Your task to perform on an android device: set an alarm Image 0: 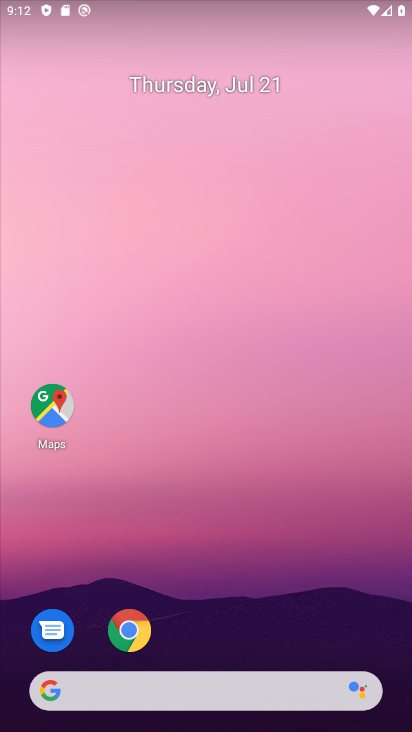
Step 0: drag from (205, 725) to (197, 246)
Your task to perform on an android device: set an alarm Image 1: 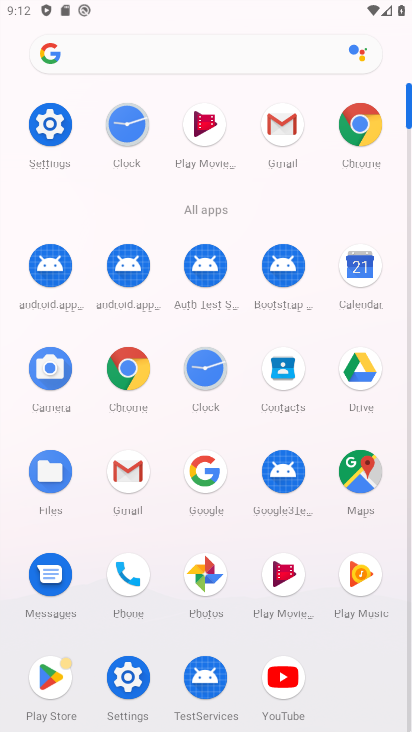
Step 1: click (212, 371)
Your task to perform on an android device: set an alarm Image 2: 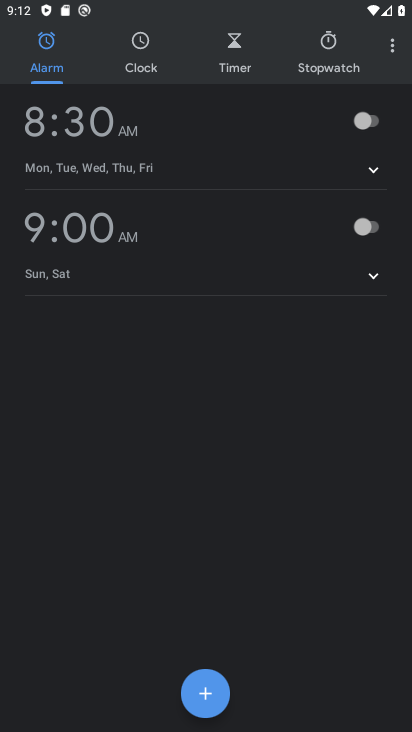
Step 2: click (209, 689)
Your task to perform on an android device: set an alarm Image 3: 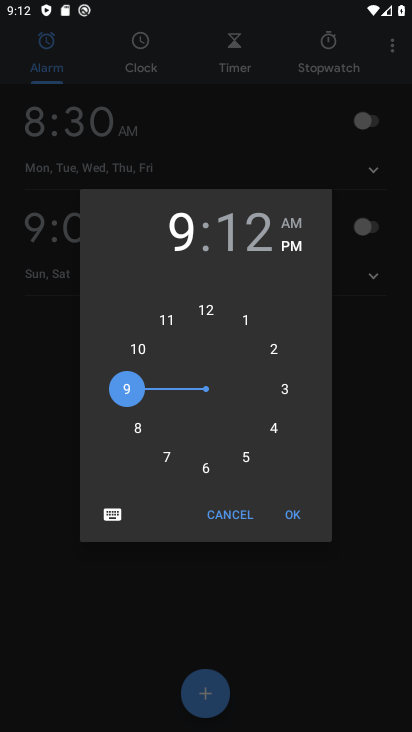
Step 3: click (204, 461)
Your task to perform on an android device: set an alarm Image 4: 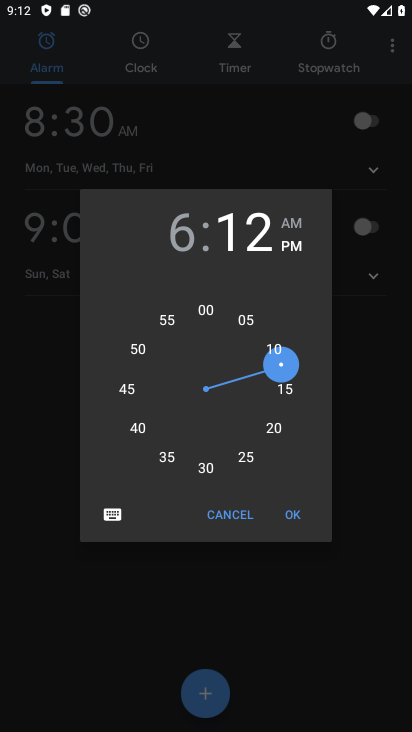
Step 4: click (288, 512)
Your task to perform on an android device: set an alarm Image 5: 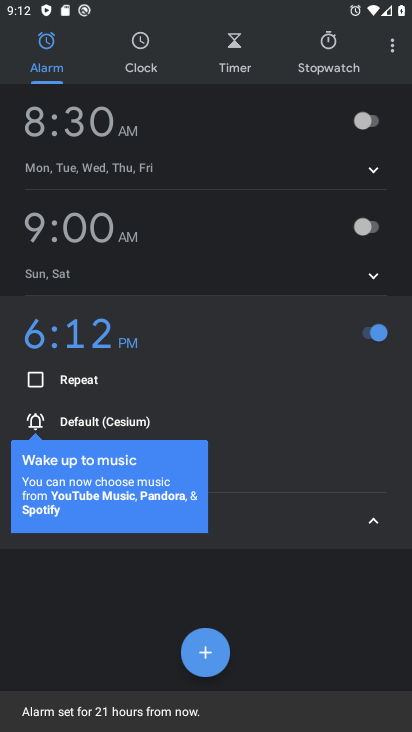
Step 5: task complete